Your task to perform on an android device: Go to ESPN.com Image 0: 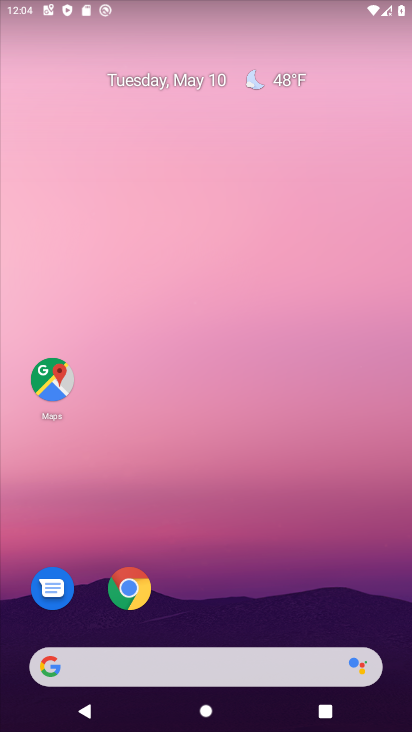
Step 0: click (140, 568)
Your task to perform on an android device: Go to ESPN.com Image 1: 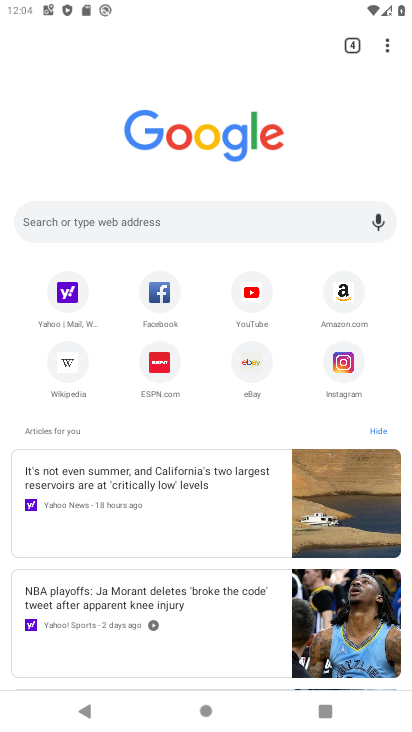
Step 1: click (154, 356)
Your task to perform on an android device: Go to ESPN.com Image 2: 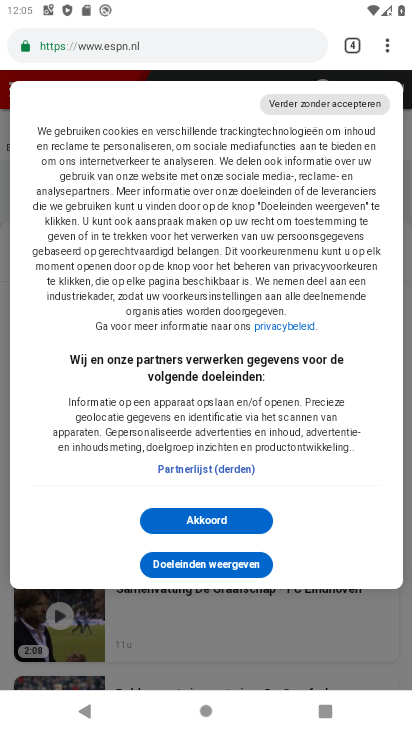
Step 2: task complete